Your task to perform on an android device: Open my contact list Image 0: 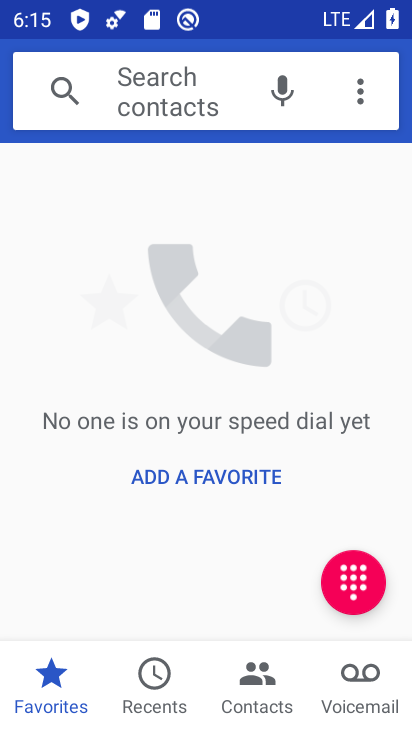
Step 0: press home button
Your task to perform on an android device: Open my contact list Image 1: 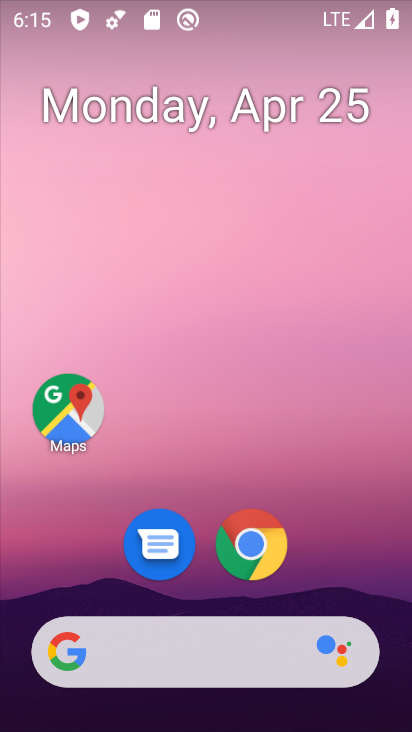
Step 1: drag from (363, 562) to (368, 32)
Your task to perform on an android device: Open my contact list Image 2: 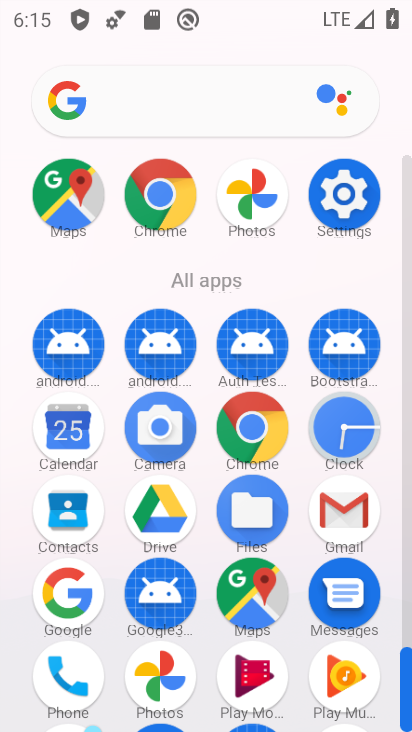
Step 2: click (61, 507)
Your task to perform on an android device: Open my contact list Image 3: 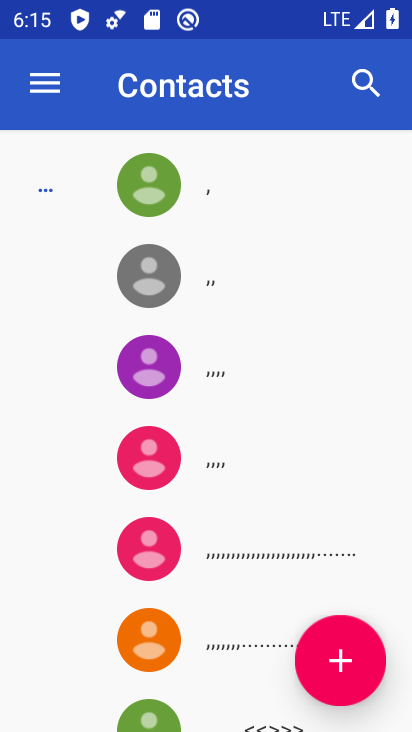
Step 3: drag from (239, 634) to (200, 179)
Your task to perform on an android device: Open my contact list Image 4: 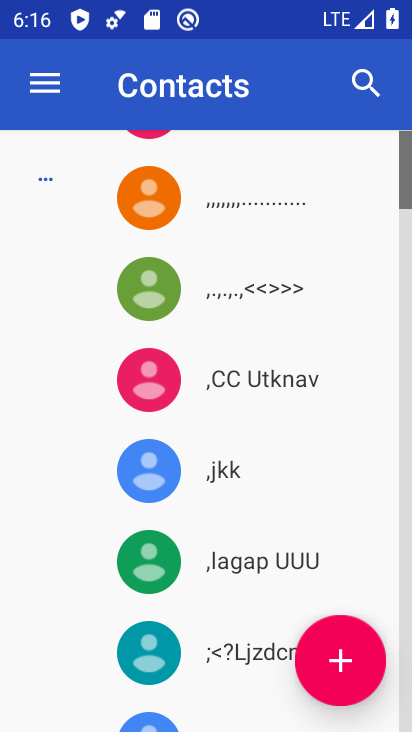
Step 4: drag from (236, 628) to (242, 211)
Your task to perform on an android device: Open my contact list Image 5: 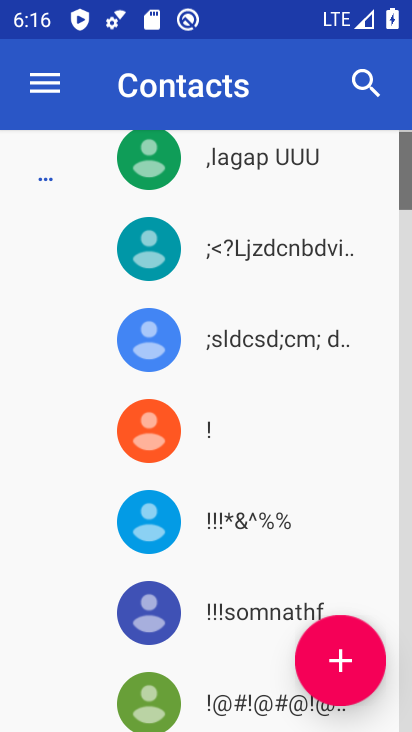
Step 5: drag from (280, 580) to (283, 188)
Your task to perform on an android device: Open my contact list Image 6: 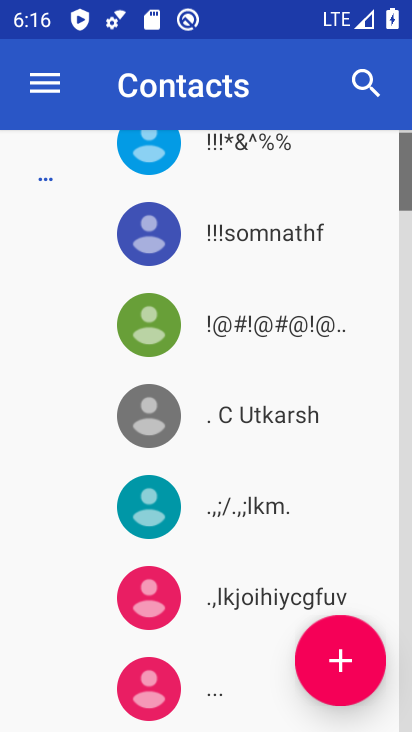
Step 6: drag from (281, 550) to (257, 213)
Your task to perform on an android device: Open my contact list Image 7: 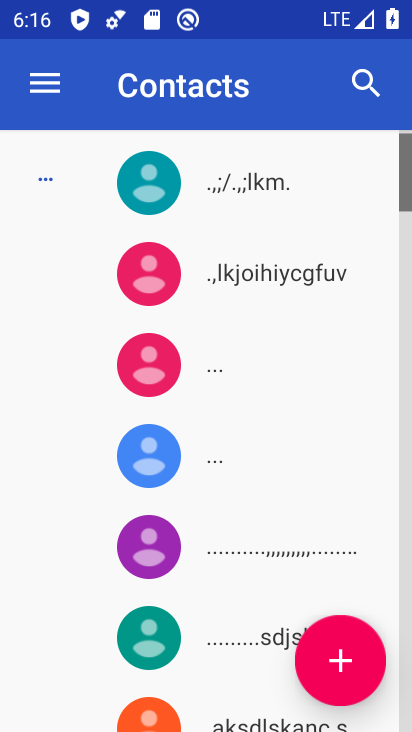
Step 7: drag from (238, 608) to (241, 363)
Your task to perform on an android device: Open my contact list Image 8: 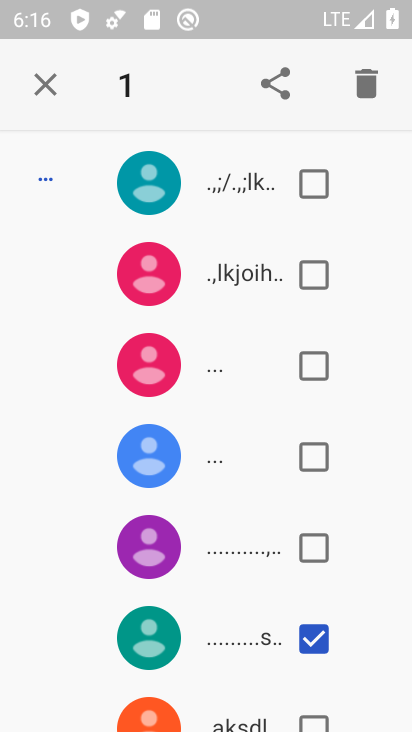
Step 8: click (51, 89)
Your task to perform on an android device: Open my contact list Image 9: 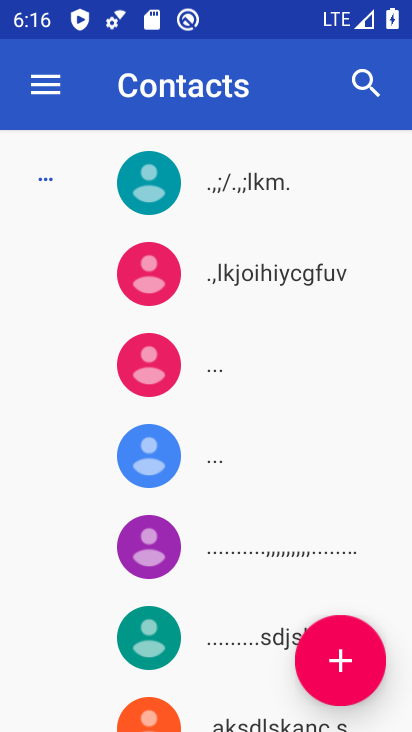
Step 9: drag from (236, 658) to (236, 171)
Your task to perform on an android device: Open my contact list Image 10: 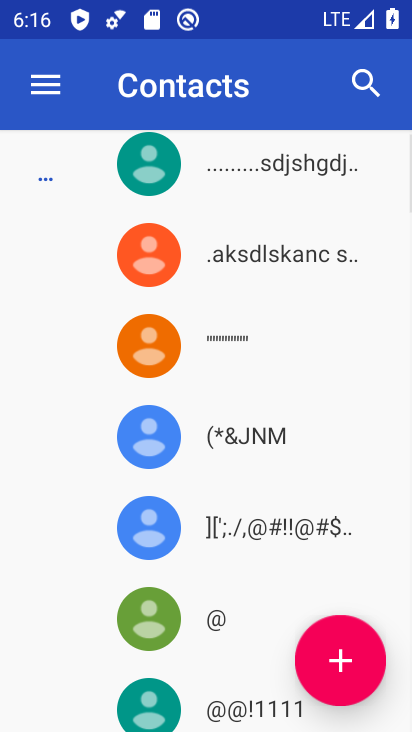
Step 10: drag from (250, 654) to (226, 243)
Your task to perform on an android device: Open my contact list Image 11: 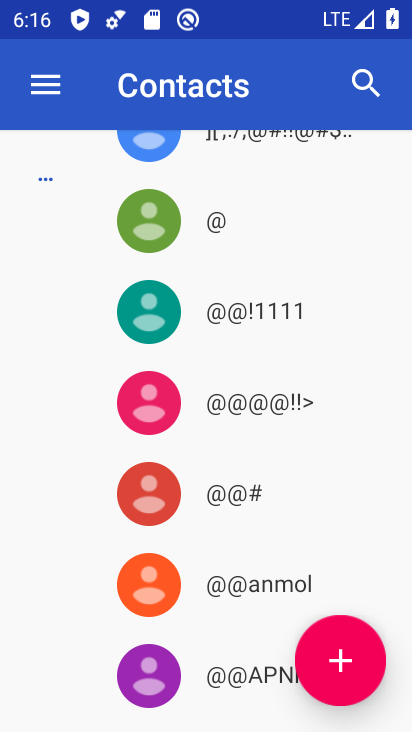
Step 11: drag from (244, 567) to (237, 182)
Your task to perform on an android device: Open my contact list Image 12: 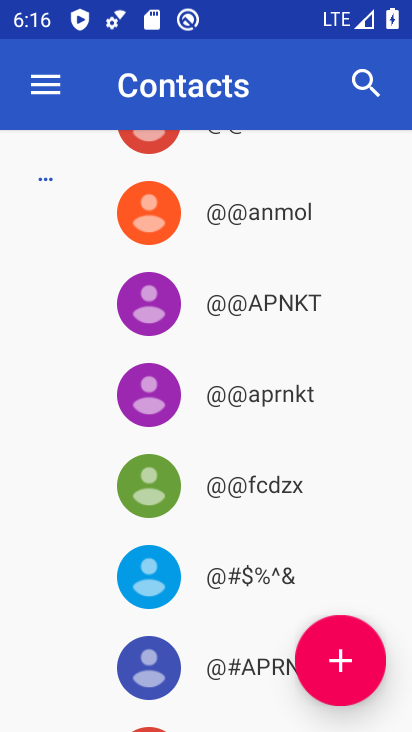
Step 12: drag from (242, 565) to (262, 276)
Your task to perform on an android device: Open my contact list Image 13: 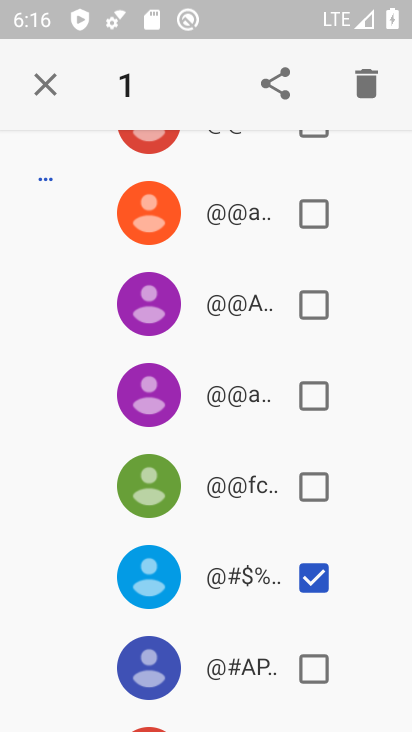
Step 13: click (58, 85)
Your task to perform on an android device: Open my contact list Image 14: 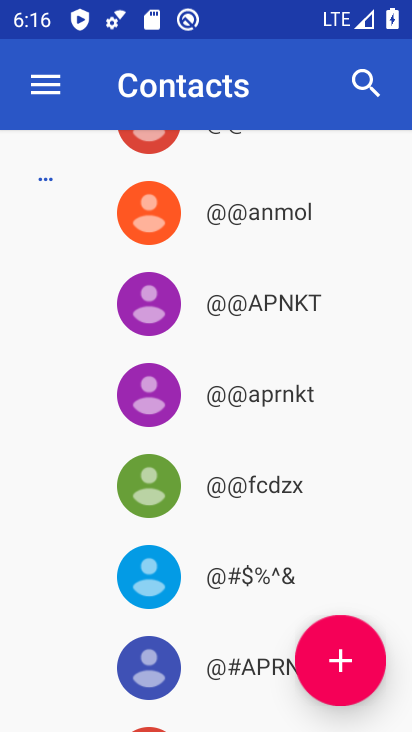
Step 14: drag from (320, 574) to (305, 155)
Your task to perform on an android device: Open my contact list Image 15: 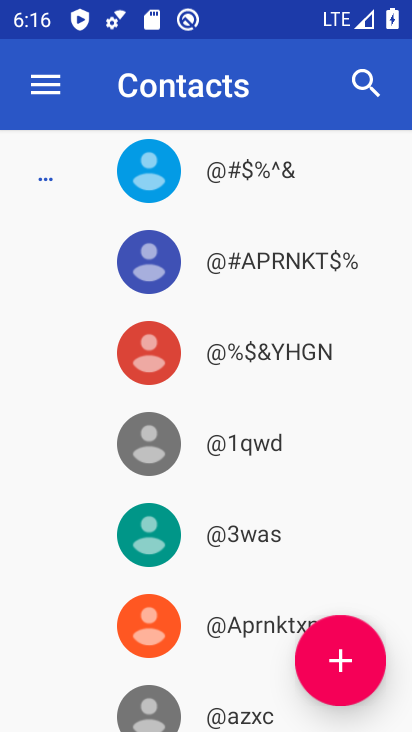
Step 15: drag from (314, 532) to (280, 197)
Your task to perform on an android device: Open my contact list Image 16: 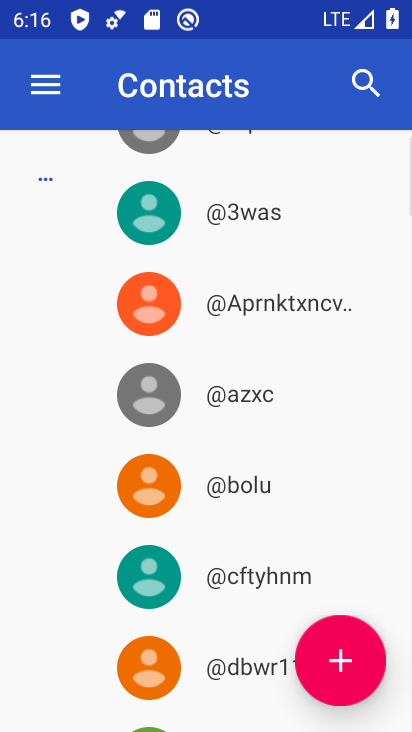
Step 16: drag from (405, 177) to (390, 664)
Your task to perform on an android device: Open my contact list Image 17: 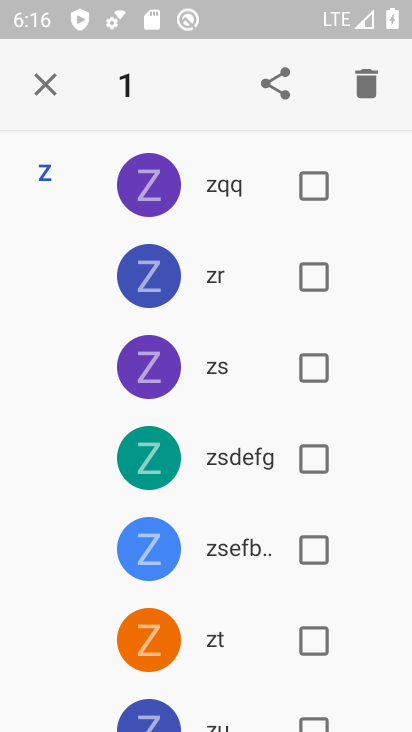
Step 17: drag from (252, 278) to (286, 624)
Your task to perform on an android device: Open my contact list Image 18: 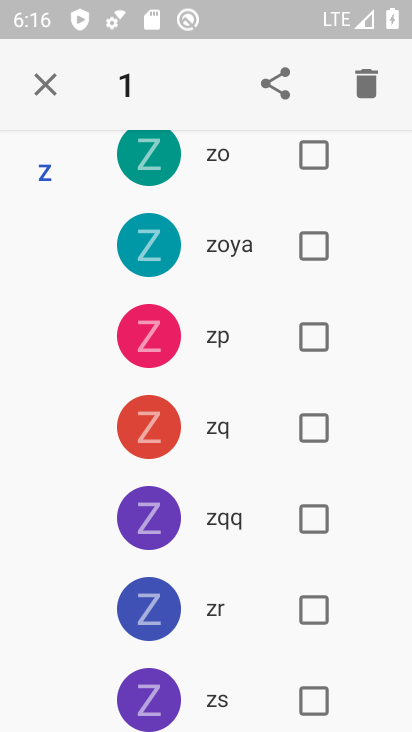
Step 18: click (158, 274)
Your task to perform on an android device: Open my contact list Image 19: 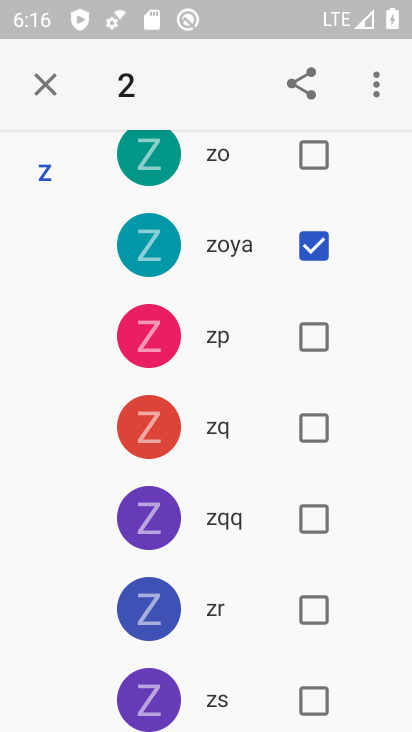
Step 19: click (158, 274)
Your task to perform on an android device: Open my contact list Image 20: 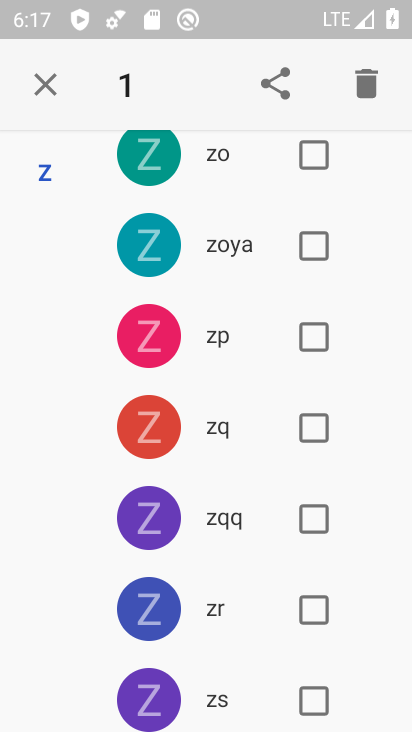
Step 20: click (43, 90)
Your task to perform on an android device: Open my contact list Image 21: 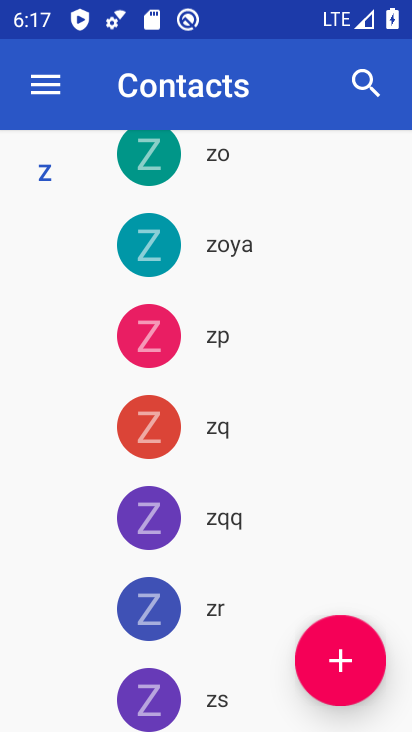
Step 21: click (143, 235)
Your task to perform on an android device: Open my contact list Image 22: 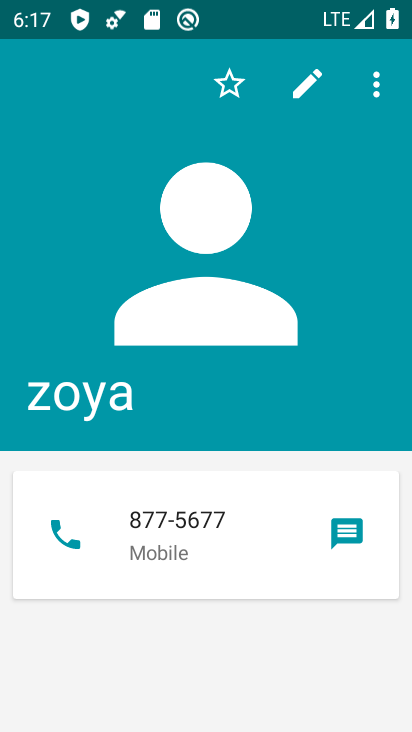
Step 22: task complete